Your task to perform on an android device: Is it going to rain today? Image 0: 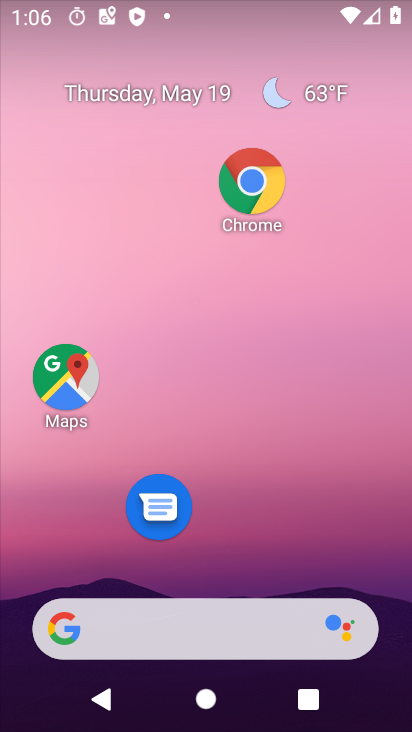
Step 0: drag from (294, 463) to (272, 97)
Your task to perform on an android device: Is it going to rain today? Image 1: 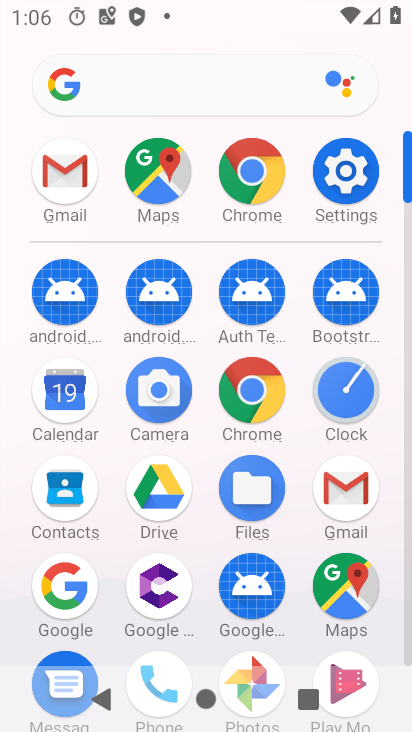
Step 1: click (69, 594)
Your task to perform on an android device: Is it going to rain today? Image 2: 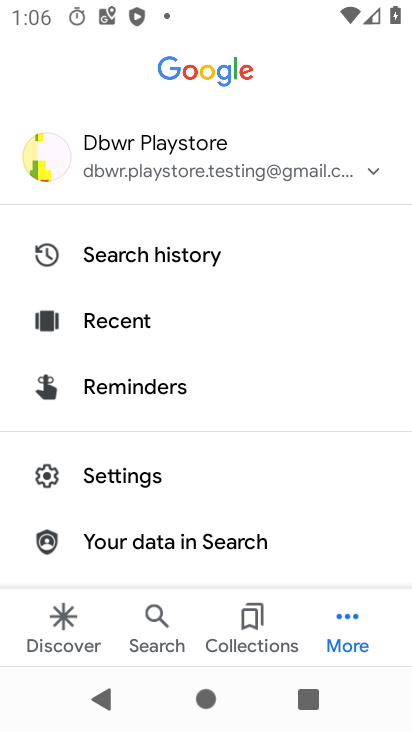
Step 2: press back button
Your task to perform on an android device: Is it going to rain today? Image 3: 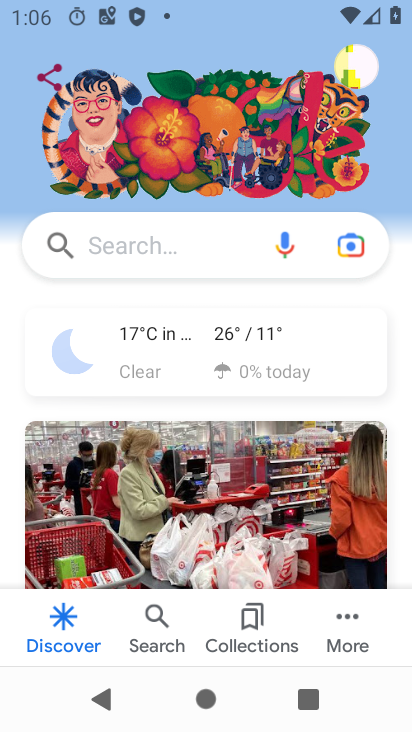
Step 3: click (113, 247)
Your task to perform on an android device: Is it going to rain today? Image 4: 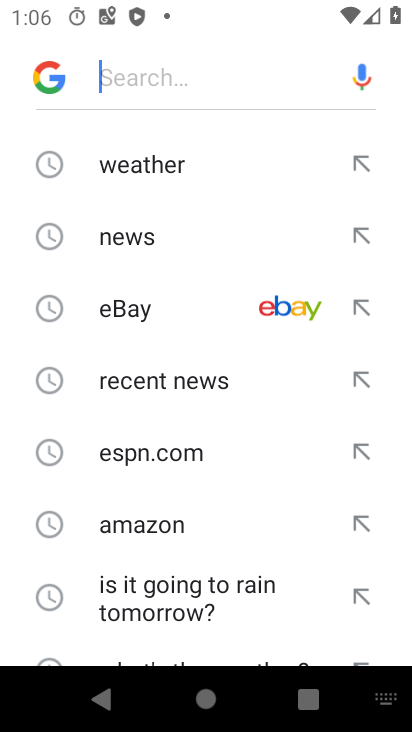
Step 4: click (145, 175)
Your task to perform on an android device: Is it going to rain today? Image 5: 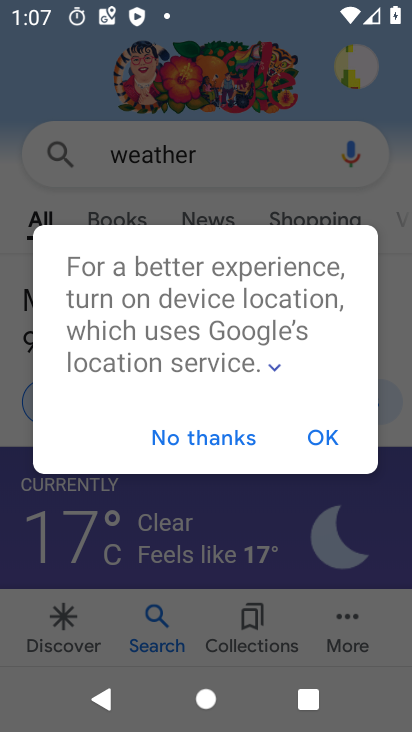
Step 5: click (189, 447)
Your task to perform on an android device: Is it going to rain today? Image 6: 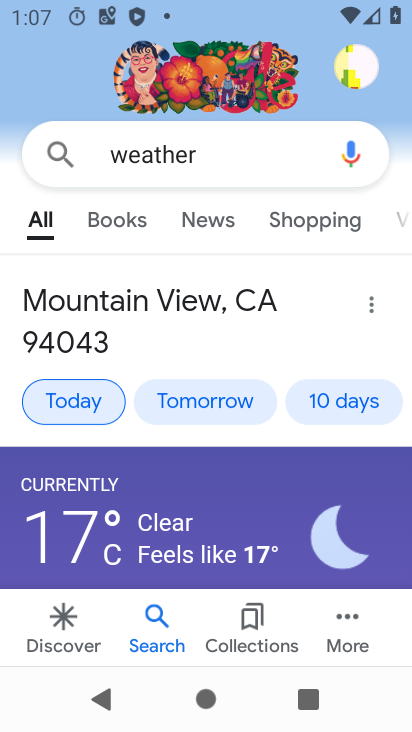
Step 6: drag from (223, 549) to (236, 273)
Your task to perform on an android device: Is it going to rain today? Image 7: 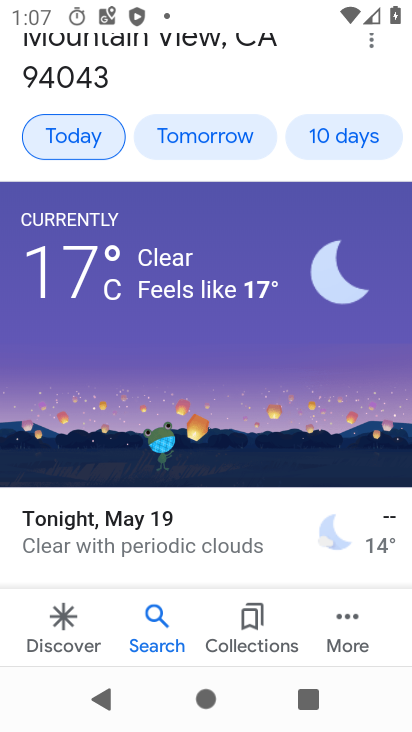
Step 7: drag from (219, 470) to (230, 278)
Your task to perform on an android device: Is it going to rain today? Image 8: 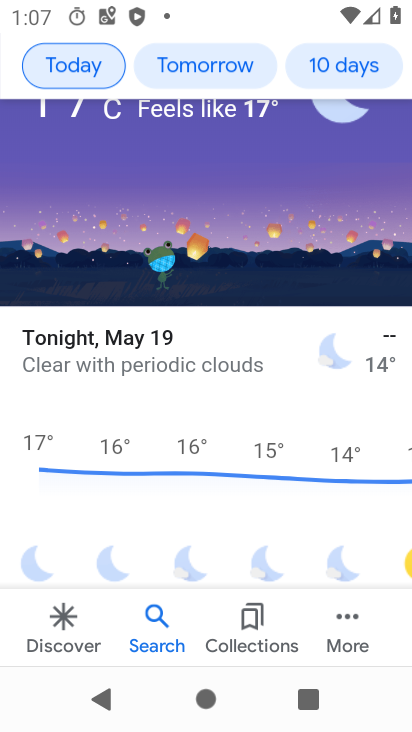
Step 8: drag from (224, 535) to (254, 335)
Your task to perform on an android device: Is it going to rain today? Image 9: 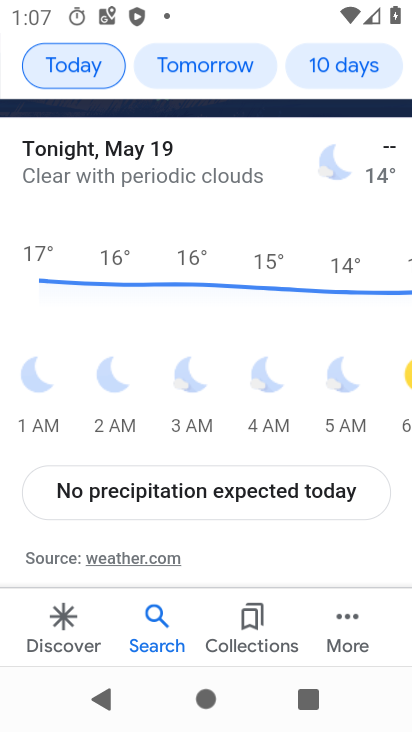
Step 9: drag from (336, 429) to (91, 433)
Your task to perform on an android device: Is it going to rain today? Image 10: 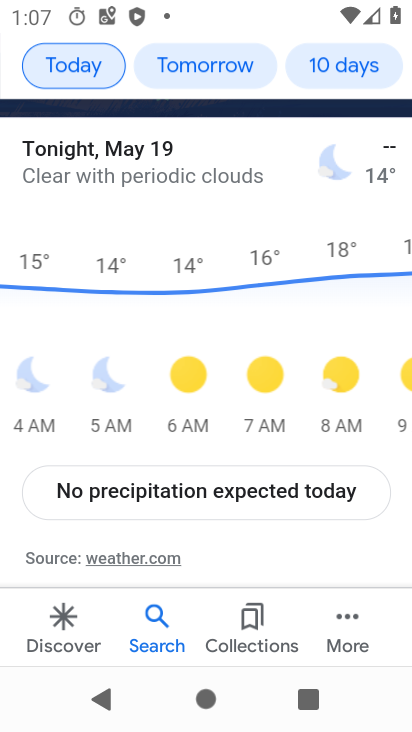
Step 10: drag from (25, 409) to (62, 394)
Your task to perform on an android device: Is it going to rain today? Image 11: 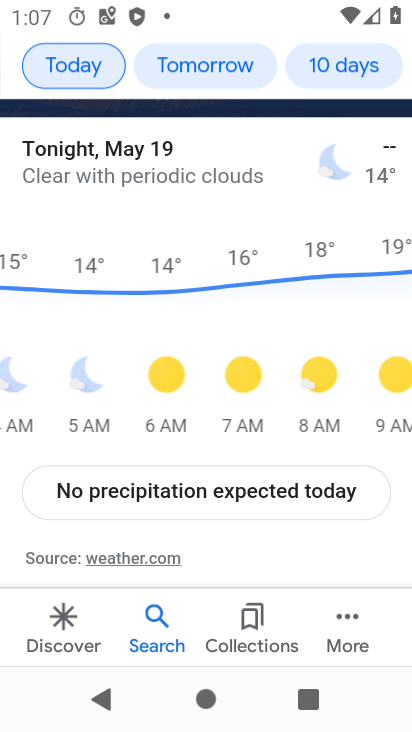
Step 11: click (1, 375)
Your task to perform on an android device: Is it going to rain today? Image 12: 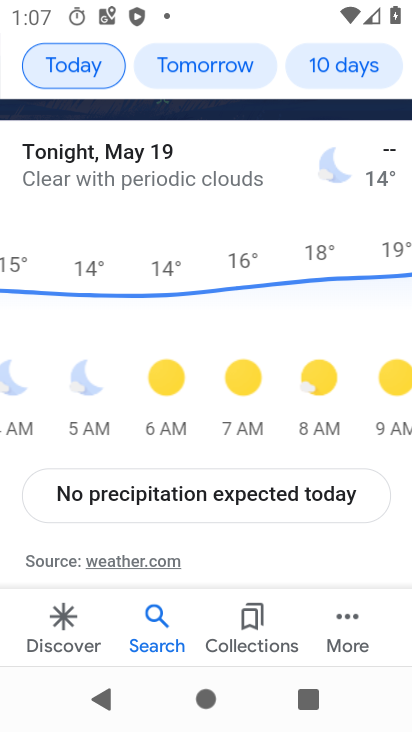
Step 12: click (3, 405)
Your task to perform on an android device: Is it going to rain today? Image 13: 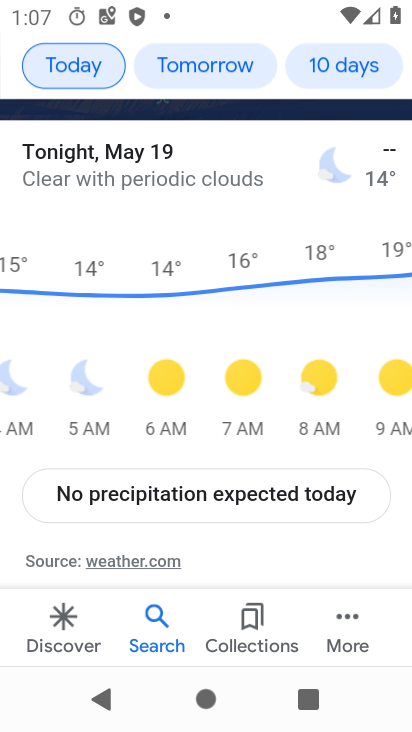
Step 13: task complete